Your task to perform on an android device: open sync settings in chrome Image 0: 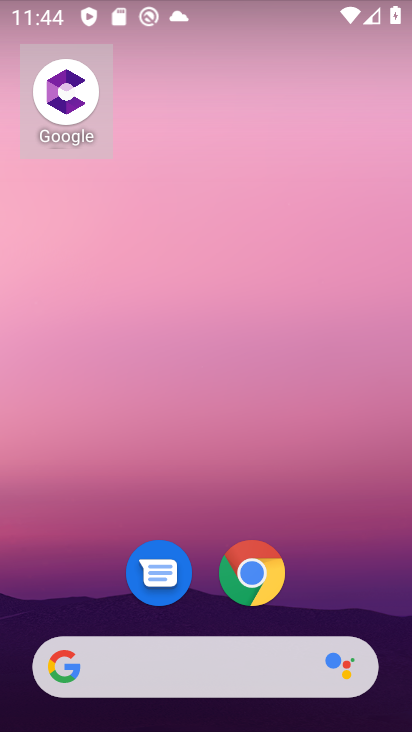
Step 0: press home button
Your task to perform on an android device: open sync settings in chrome Image 1: 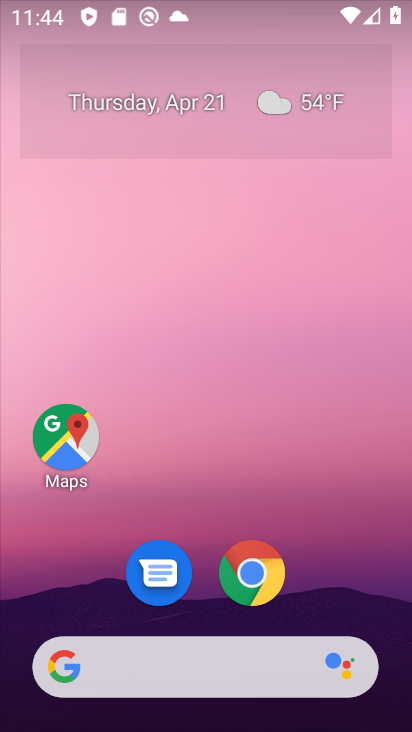
Step 1: drag from (367, 548) to (354, 122)
Your task to perform on an android device: open sync settings in chrome Image 2: 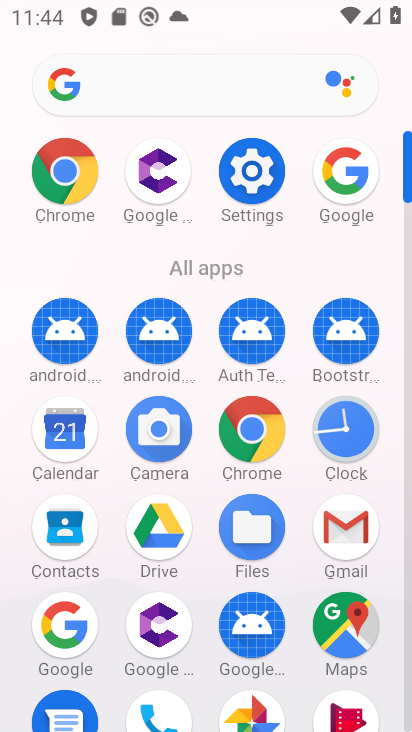
Step 2: click (231, 453)
Your task to perform on an android device: open sync settings in chrome Image 3: 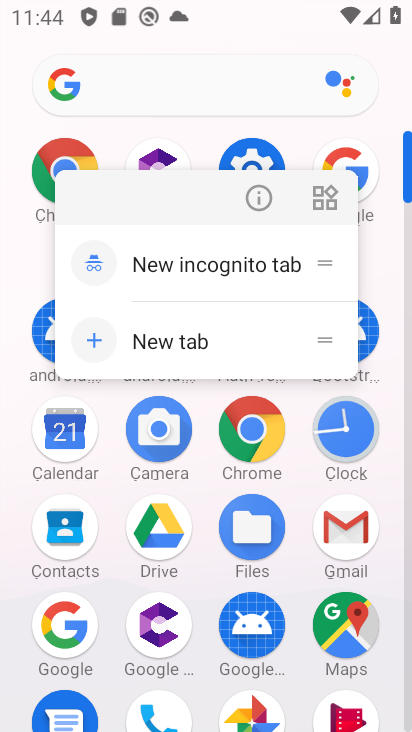
Step 3: click (240, 453)
Your task to perform on an android device: open sync settings in chrome Image 4: 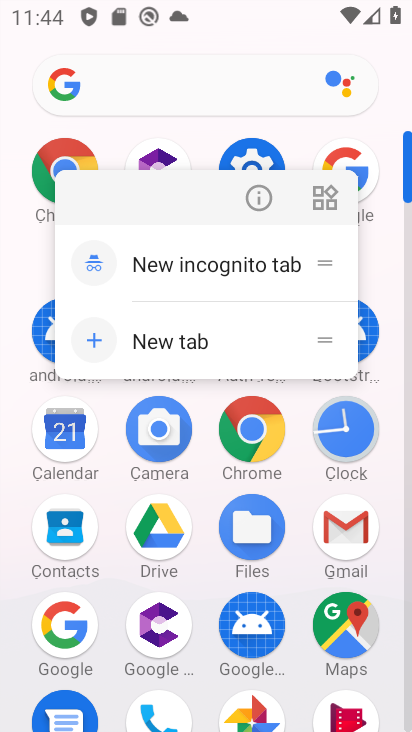
Step 4: click (238, 452)
Your task to perform on an android device: open sync settings in chrome Image 5: 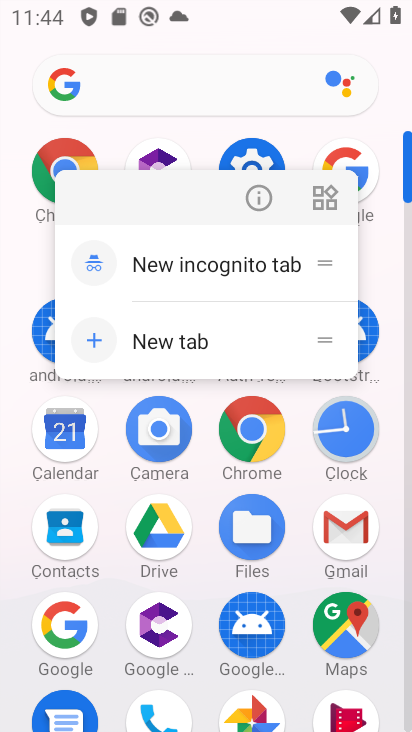
Step 5: click (258, 452)
Your task to perform on an android device: open sync settings in chrome Image 6: 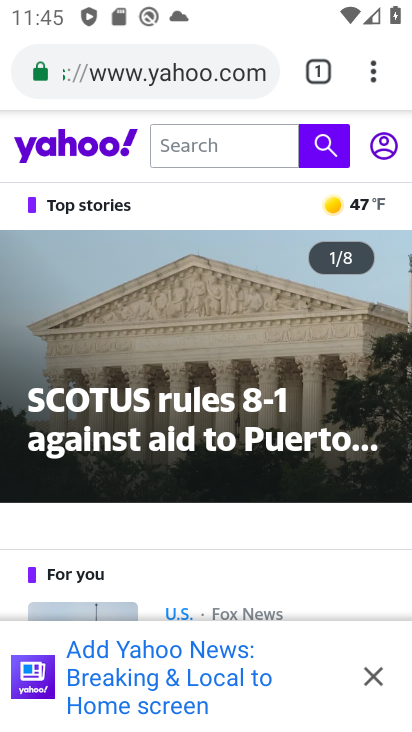
Step 6: drag from (382, 70) to (161, 575)
Your task to perform on an android device: open sync settings in chrome Image 7: 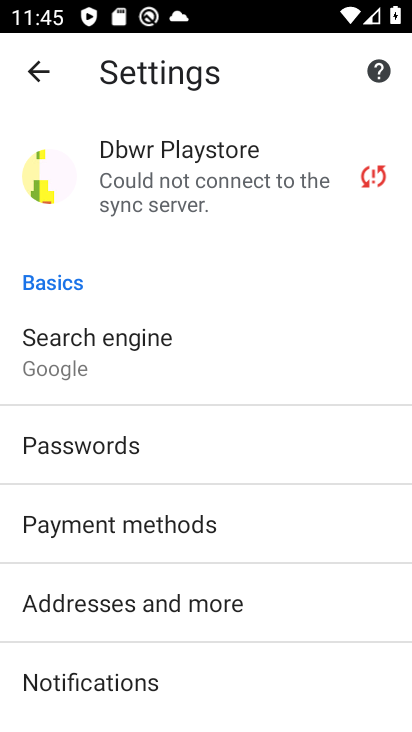
Step 7: drag from (293, 659) to (297, 311)
Your task to perform on an android device: open sync settings in chrome Image 8: 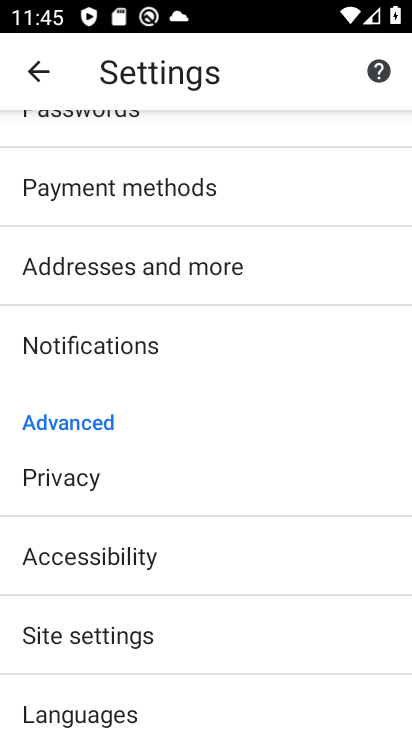
Step 8: click (149, 635)
Your task to perform on an android device: open sync settings in chrome Image 9: 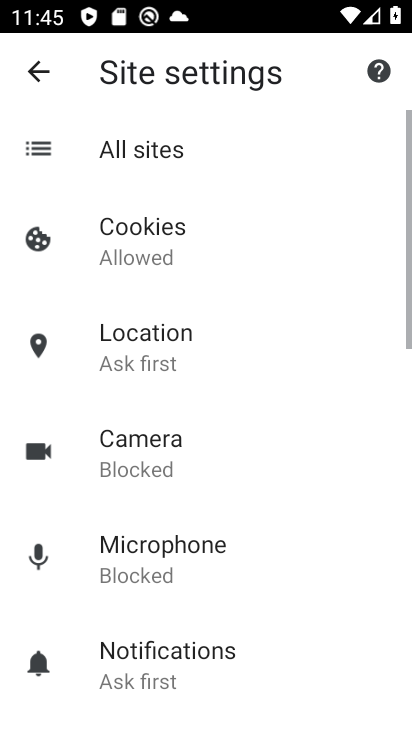
Step 9: drag from (301, 657) to (283, 252)
Your task to perform on an android device: open sync settings in chrome Image 10: 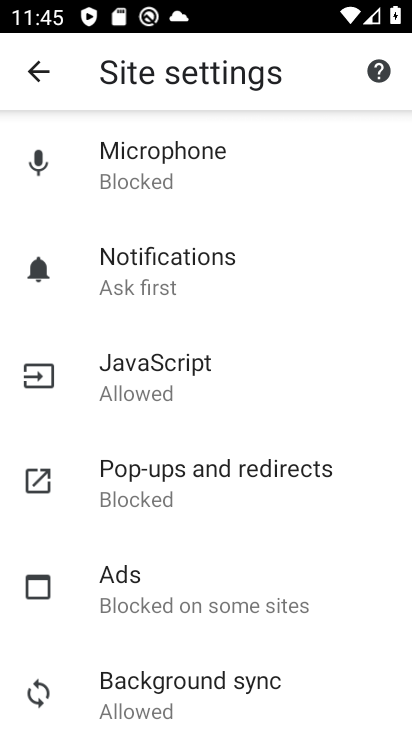
Step 10: drag from (290, 565) to (291, 293)
Your task to perform on an android device: open sync settings in chrome Image 11: 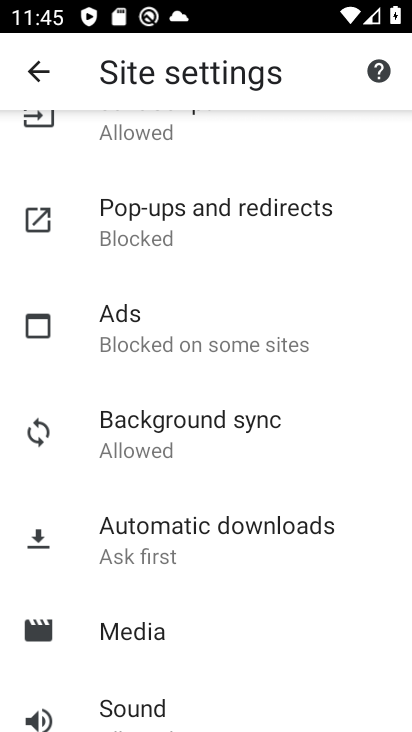
Step 11: click (222, 430)
Your task to perform on an android device: open sync settings in chrome Image 12: 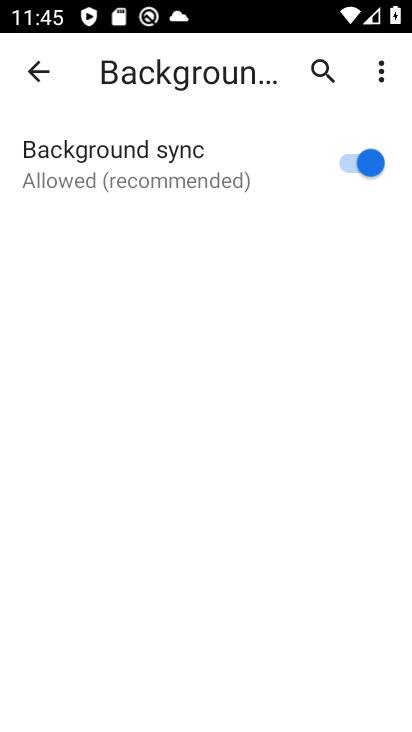
Step 12: task complete